Your task to perform on an android device: Go to network settings Image 0: 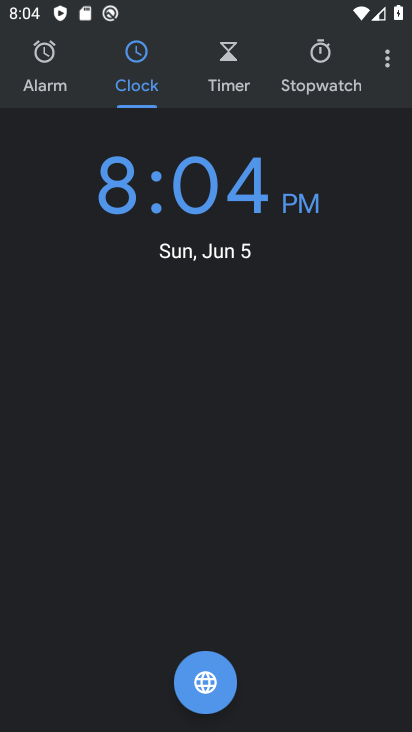
Step 0: press home button
Your task to perform on an android device: Go to network settings Image 1: 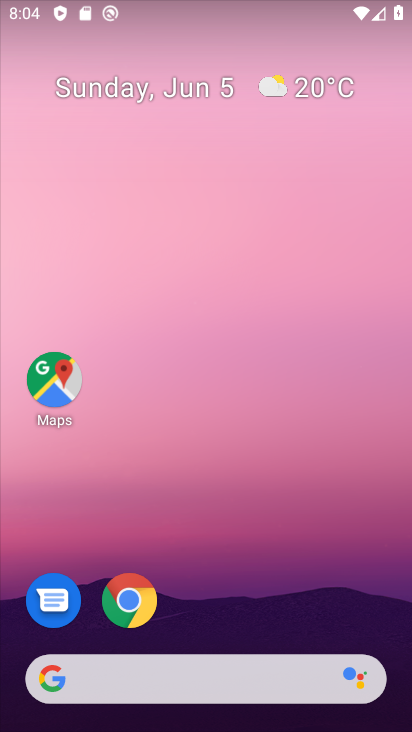
Step 1: drag from (311, 626) to (235, 35)
Your task to perform on an android device: Go to network settings Image 2: 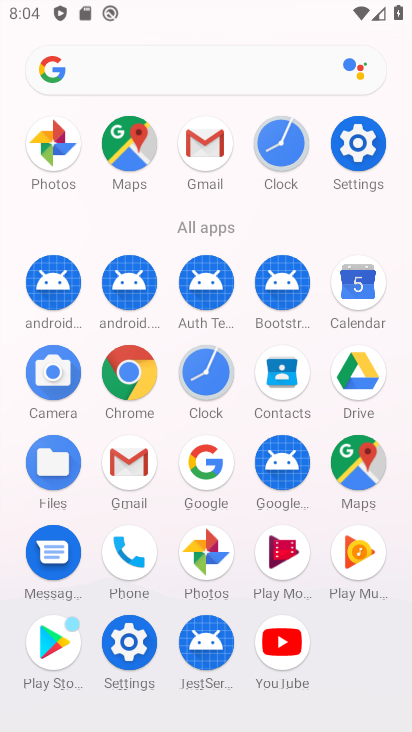
Step 2: click (353, 150)
Your task to perform on an android device: Go to network settings Image 3: 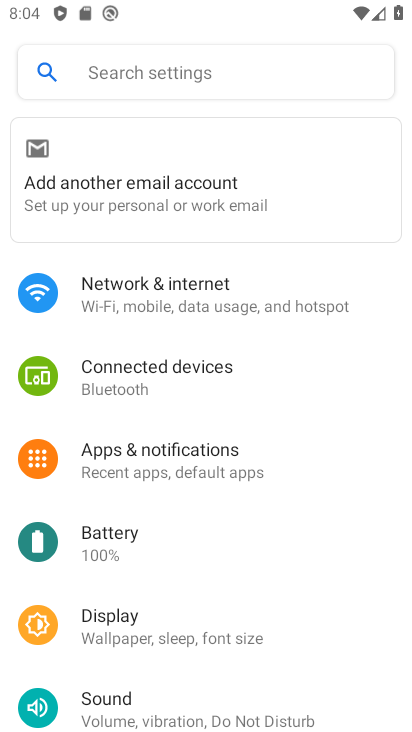
Step 3: click (194, 309)
Your task to perform on an android device: Go to network settings Image 4: 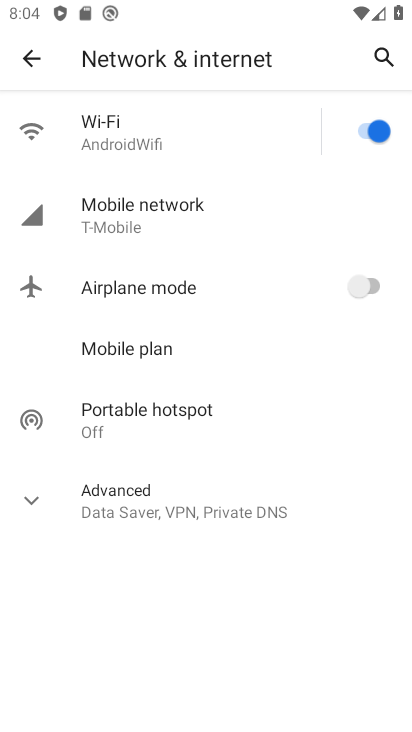
Step 4: task complete